Your task to perform on an android device: open chrome privacy settings Image 0: 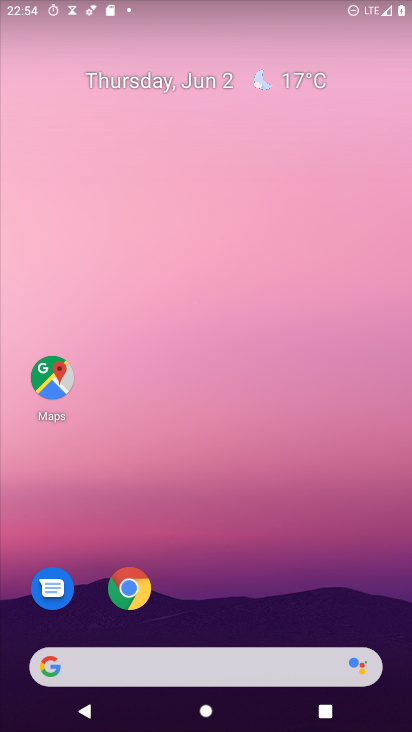
Step 0: drag from (227, 525) to (230, 110)
Your task to perform on an android device: open chrome privacy settings Image 1: 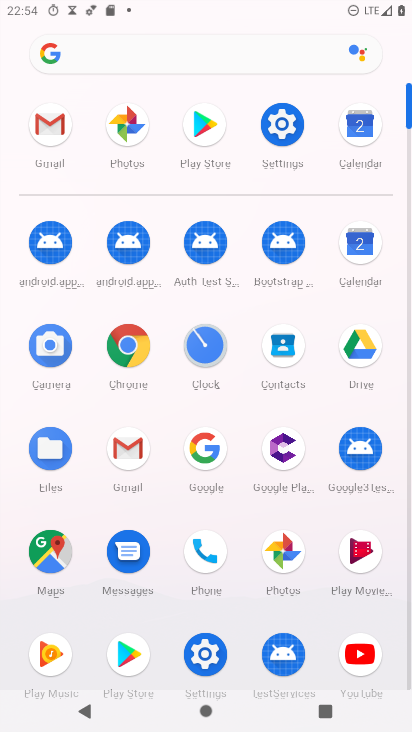
Step 1: click (132, 334)
Your task to perform on an android device: open chrome privacy settings Image 2: 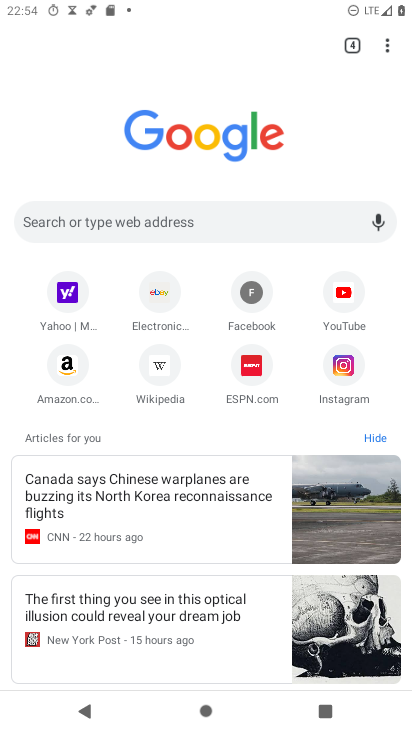
Step 2: drag from (392, 49) to (254, 378)
Your task to perform on an android device: open chrome privacy settings Image 3: 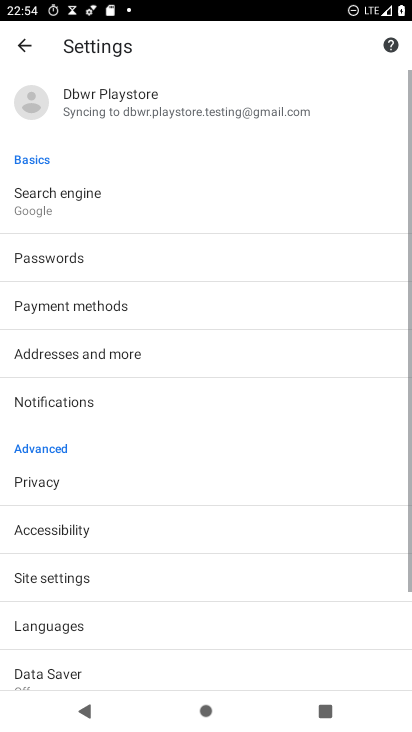
Step 3: click (60, 481)
Your task to perform on an android device: open chrome privacy settings Image 4: 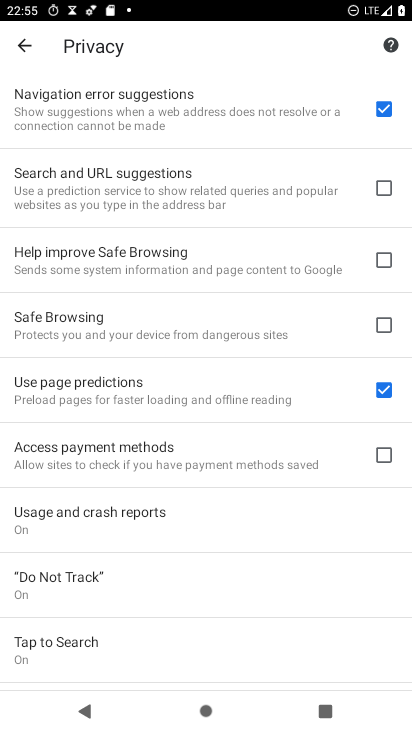
Step 4: task complete